Your task to perform on an android device: snooze an email in the gmail app Image 0: 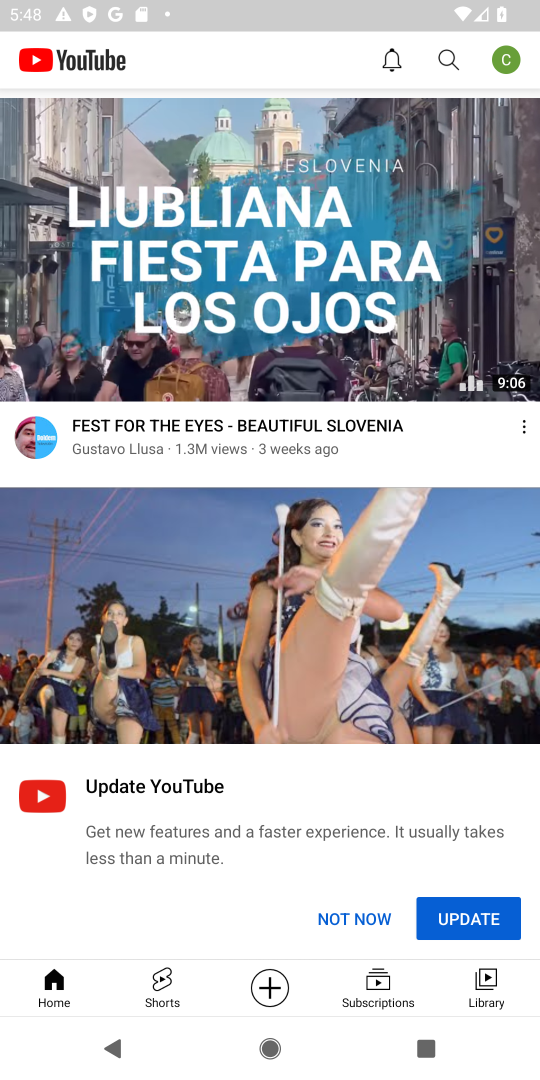
Step 0: press home button
Your task to perform on an android device: snooze an email in the gmail app Image 1: 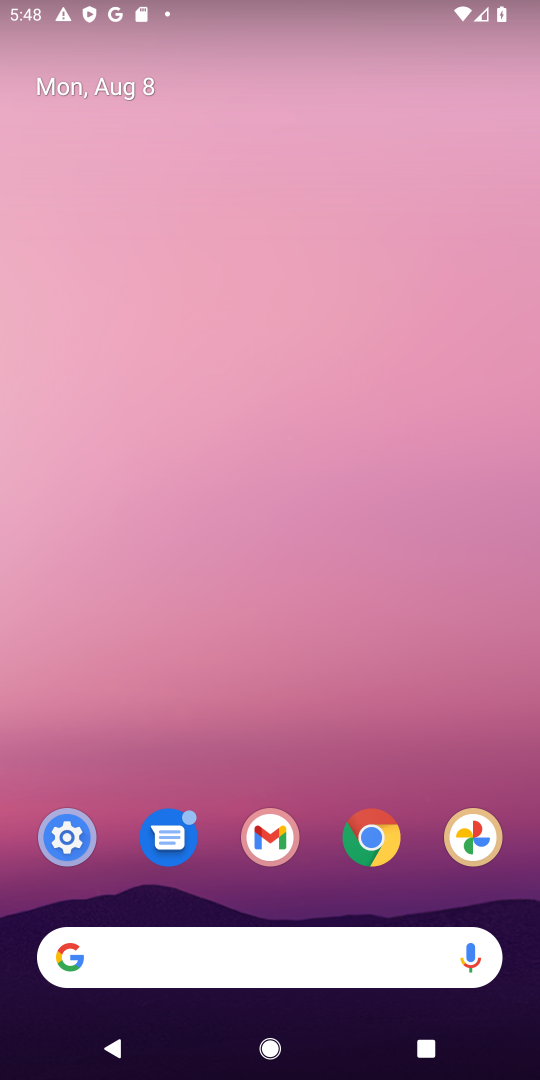
Step 1: drag from (380, 889) to (455, 103)
Your task to perform on an android device: snooze an email in the gmail app Image 2: 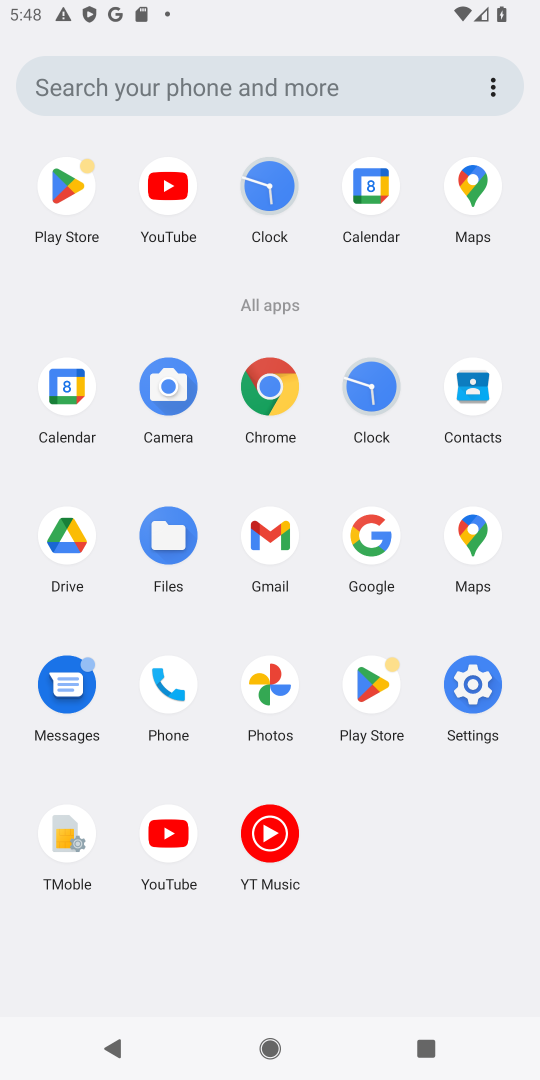
Step 2: click (266, 553)
Your task to perform on an android device: snooze an email in the gmail app Image 3: 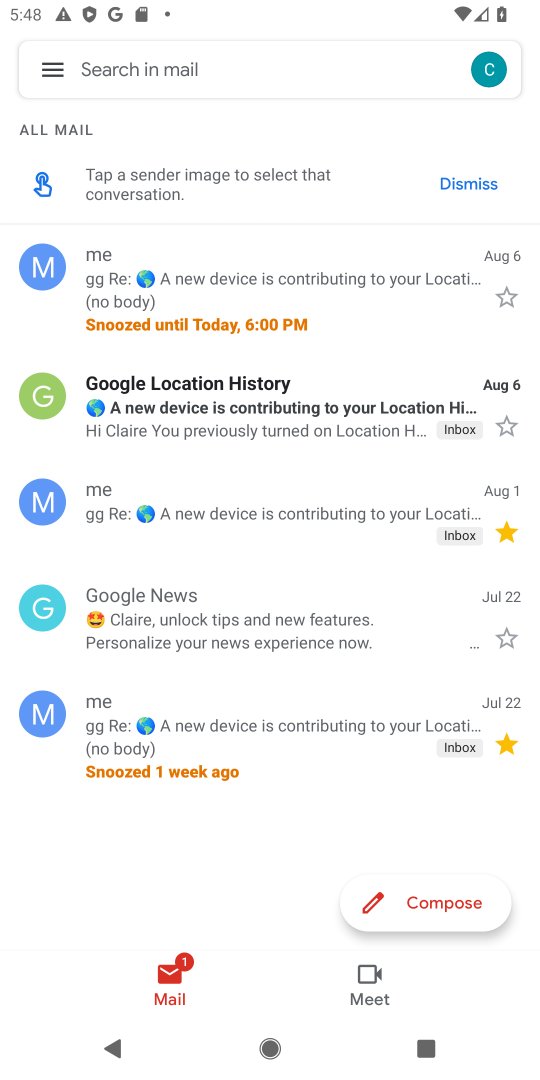
Step 3: click (329, 621)
Your task to perform on an android device: snooze an email in the gmail app Image 4: 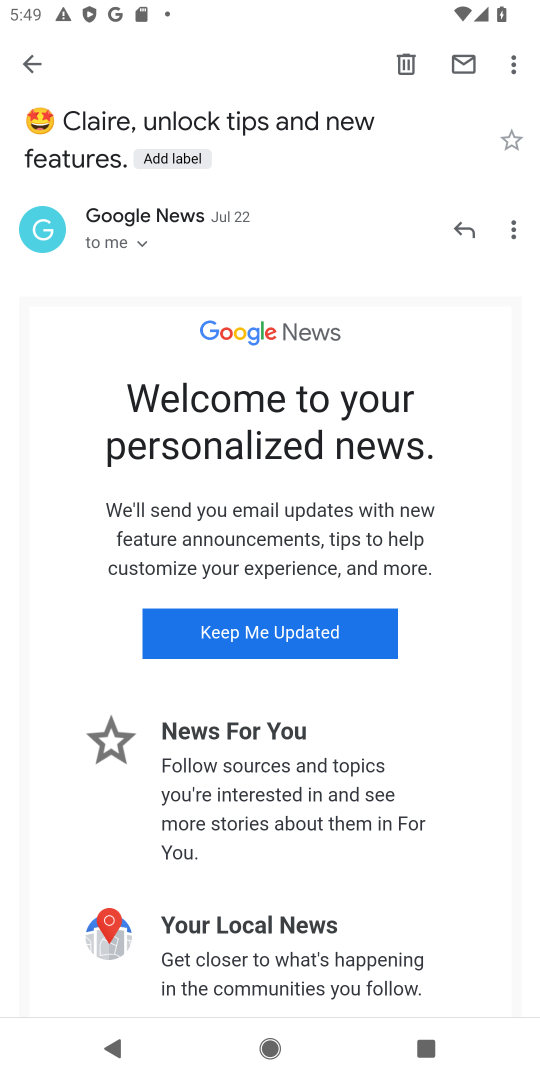
Step 4: click (530, 72)
Your task to perform on an android device: snooze an email in the gmail app Image 5: 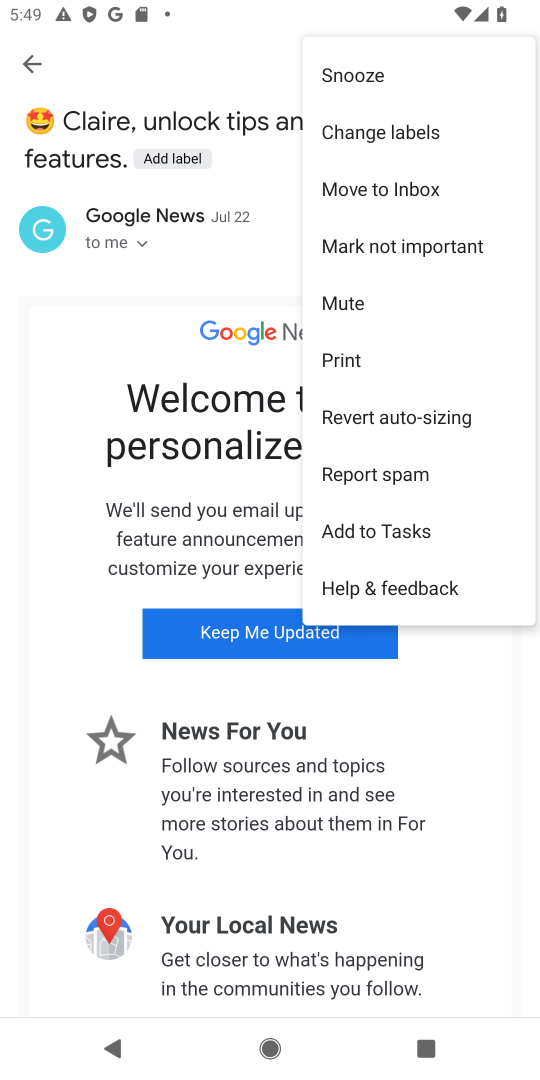
Step 5: click (357, 71)
Your task to perform on an android device: snooze an email in the gmail app Image 6: 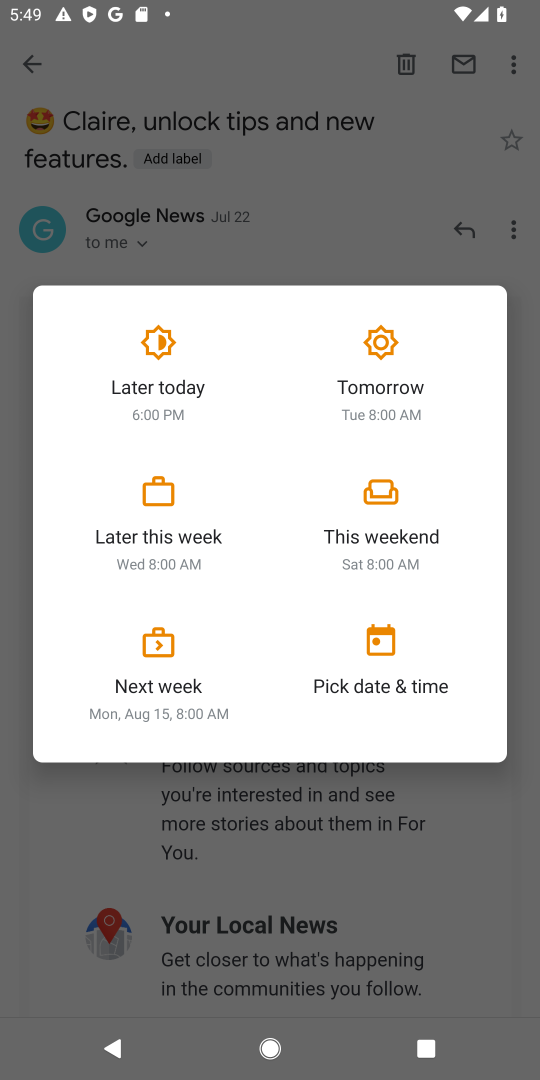
Step 6: click (138, 384)
Your task to perform on an android device: snooze an email in the gmail app Image 7: 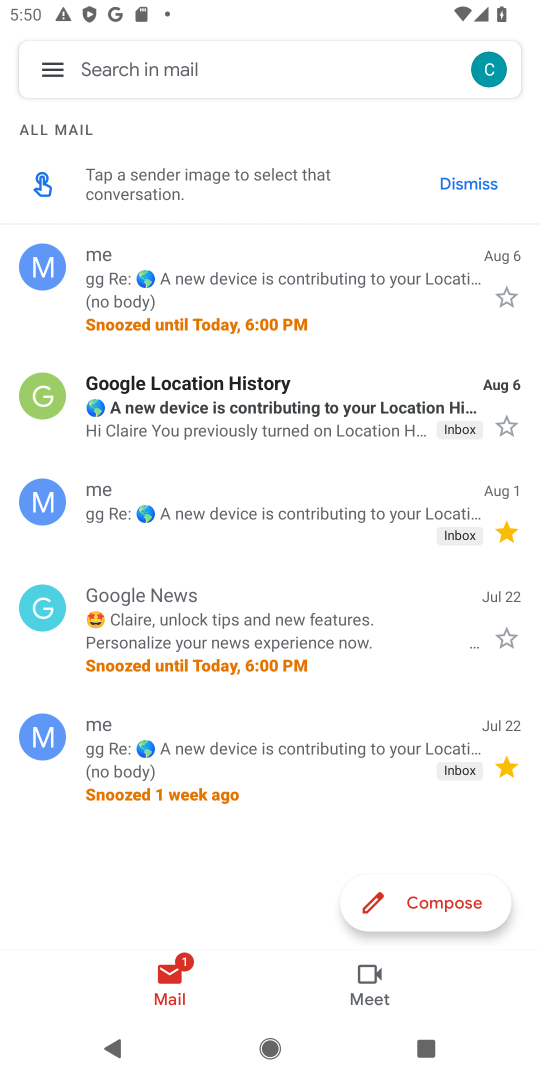
Step 7: task complete